Your task to perform on an android device: uninstall "Messages" Image 0: 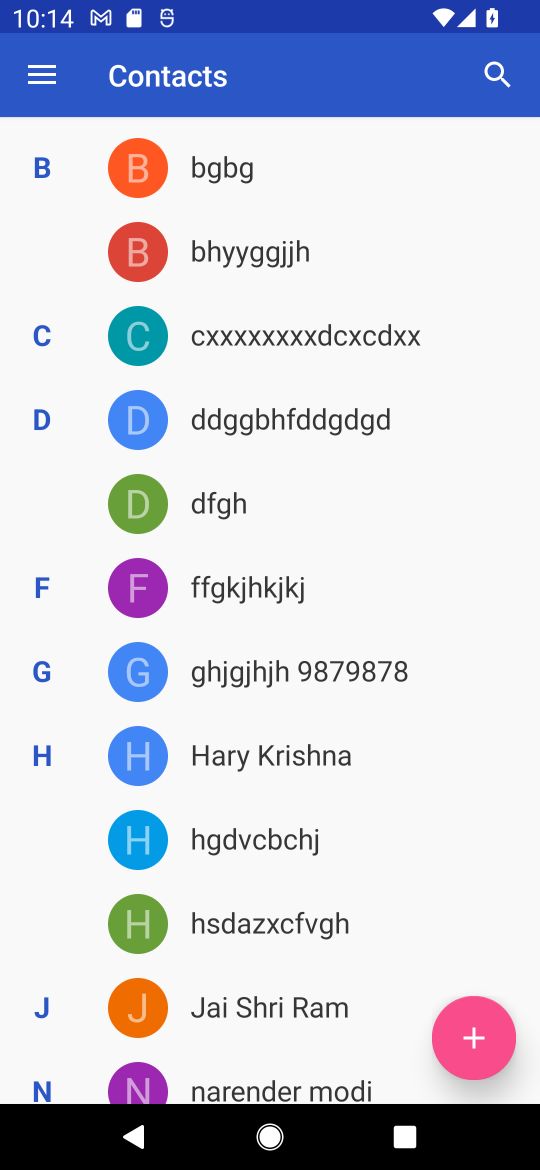
Step 0: press home button
Your task to perform on an android device: uninstall "Messages" Image 1: 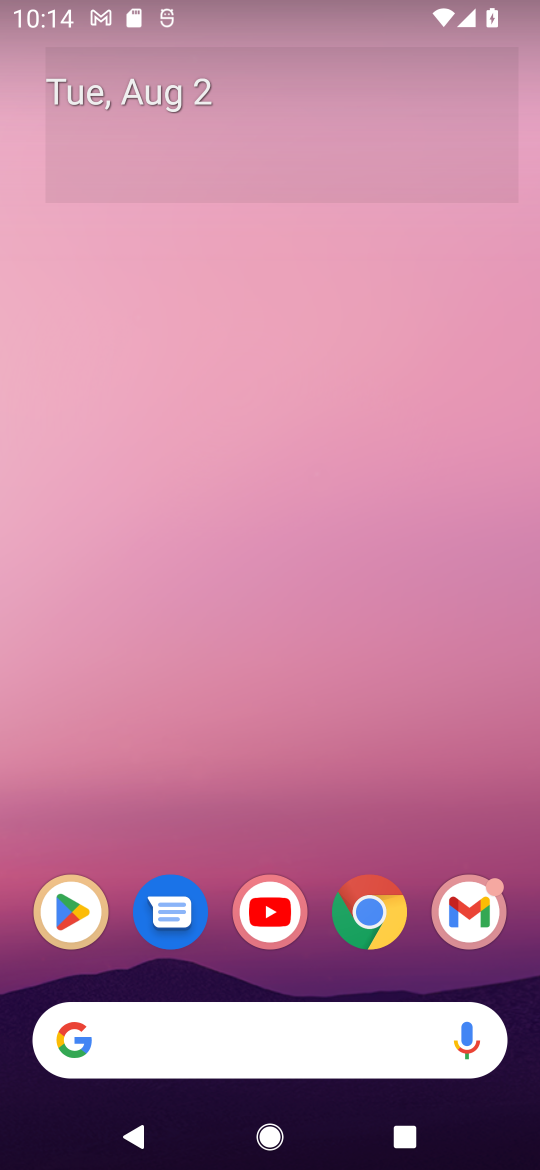
Step 1: click (85, 909)
Your task to perform on an android device: uninstall "Messages" Image 2: 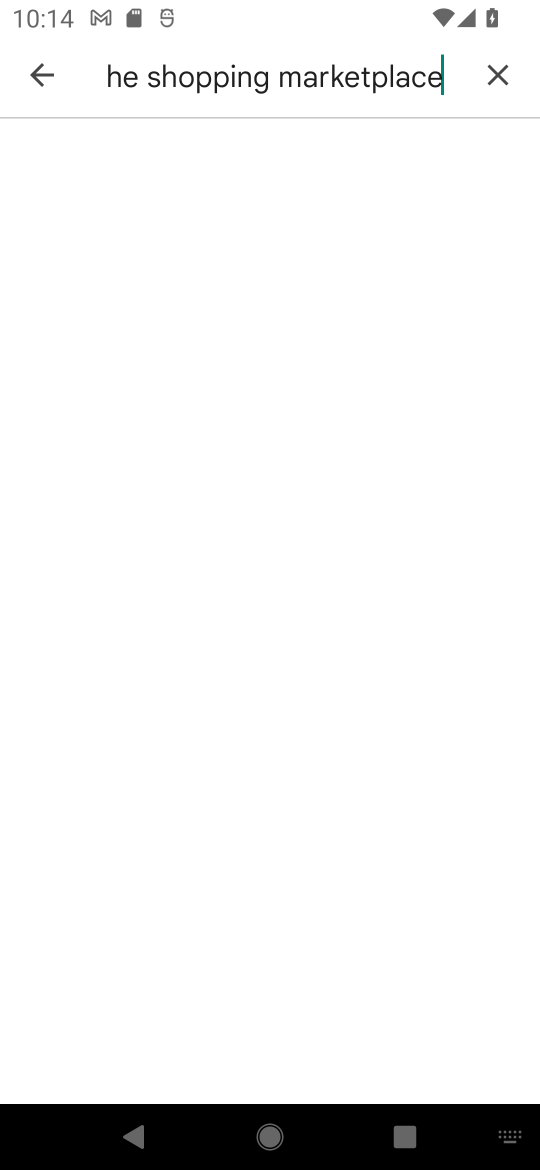
Step 2: click (495, 80)
Your task to perform on an android device: uninstall "Messages" Image 3: 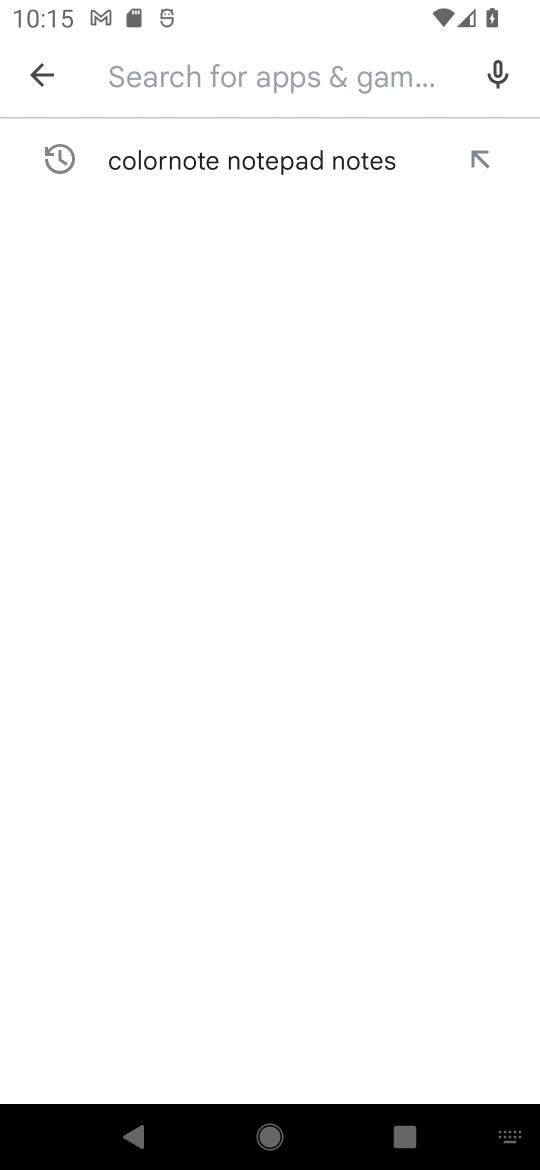
Step 3: type "Messages"
Your task to perform on an android device: uninstall "Messages" Image 4: 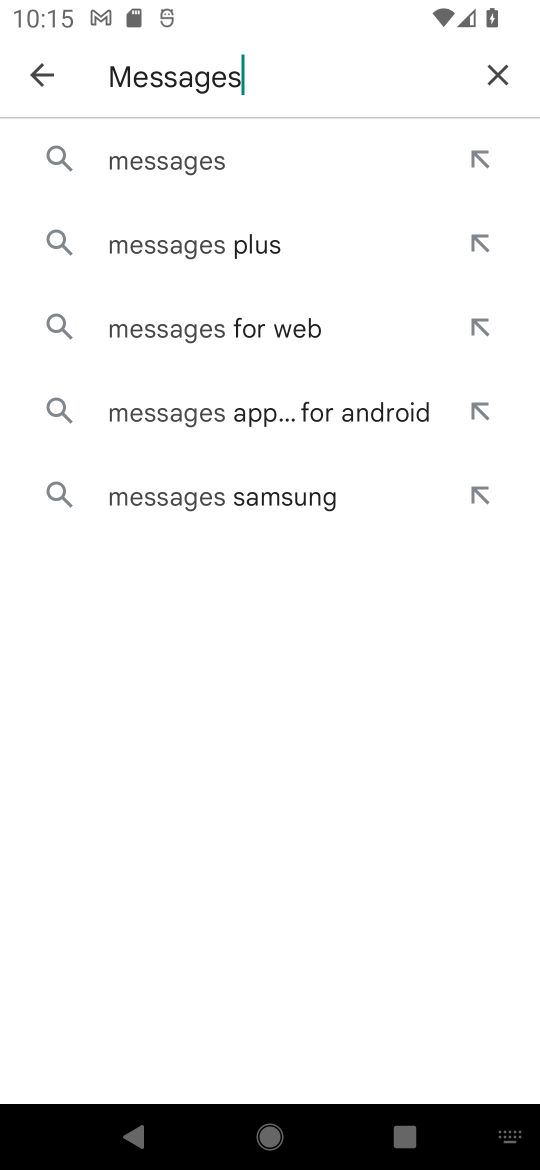
Step 4: click (152, 150)
Your task to perform on an android device: uninstall "Messages" Image 5: 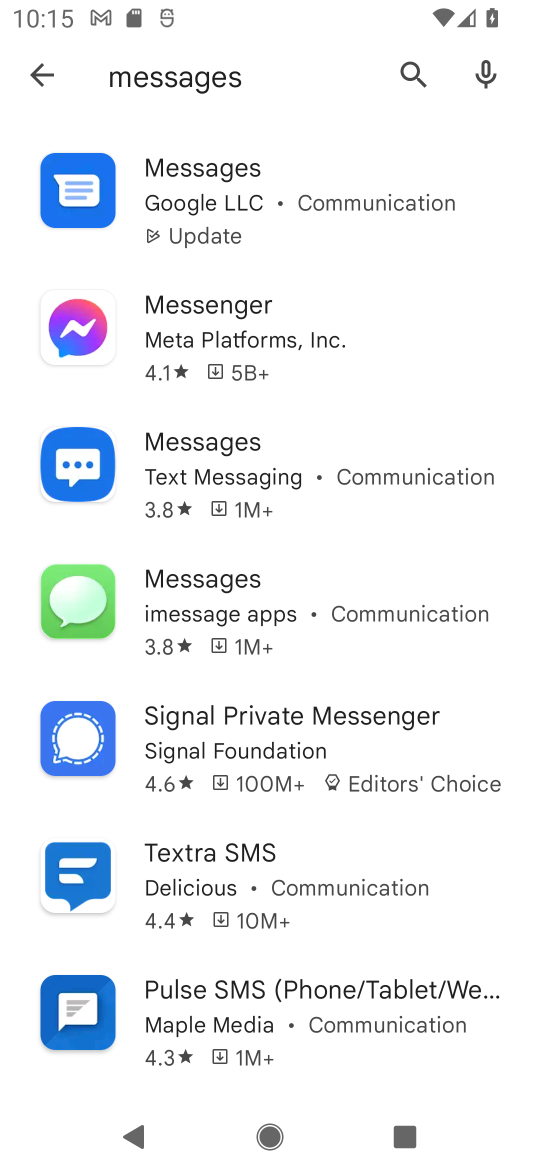
Step 5: click (264, 197)
Your task to perform on an android device: uninstall "Messages" Image 6: 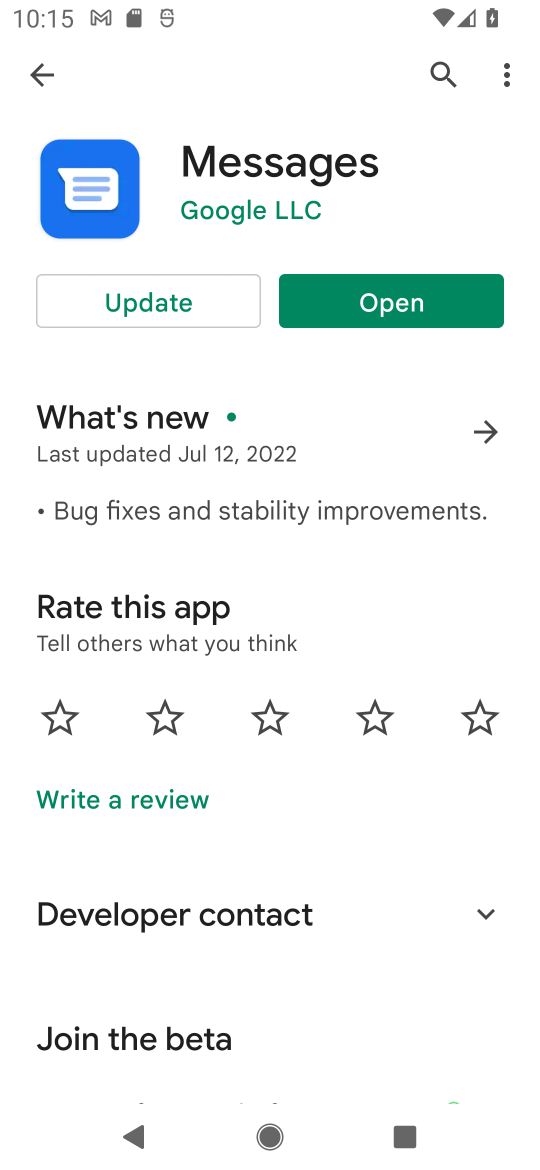
Step 6: task complete